Your task to perform on an android device: turn off improve location accuracy Image 0: 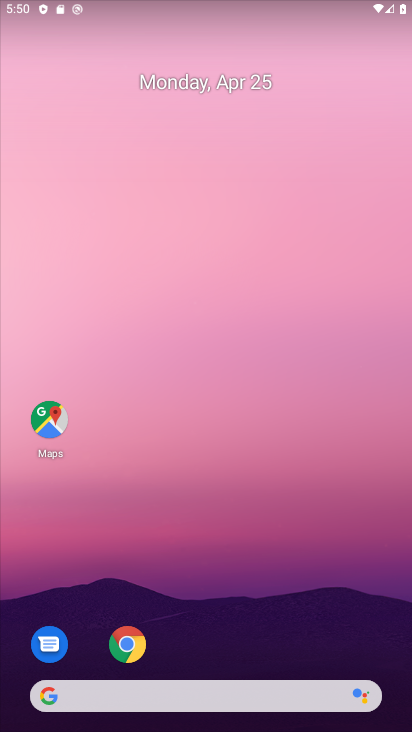
Step 0: drag from (279, 644) to (307, 108)
Your task to perform on an android device: turn off improve location accuracy Image 1: 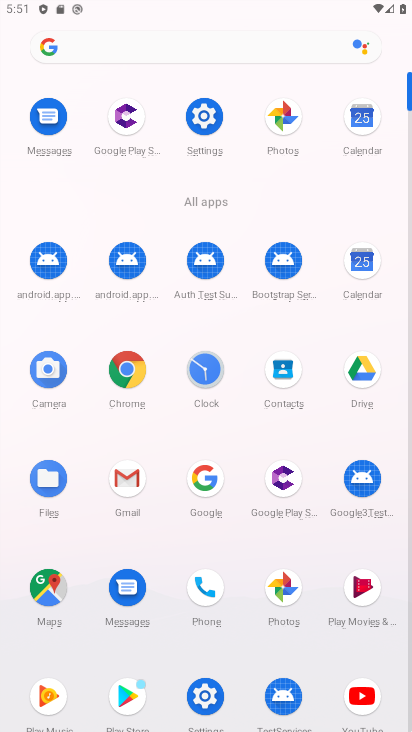
Step 1: click (213, 119)
Your task to perform on an android device: turn off improve location accuracy Image 2: 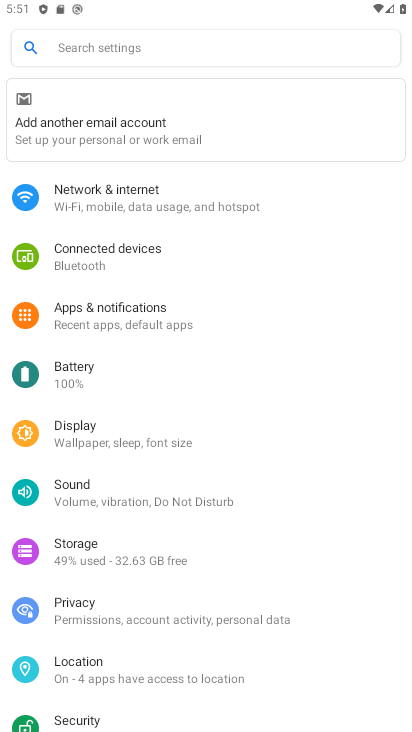
Step 2: click (154, 670)
Your task to perform on an android device: turn off improve location accuracy Image 3: 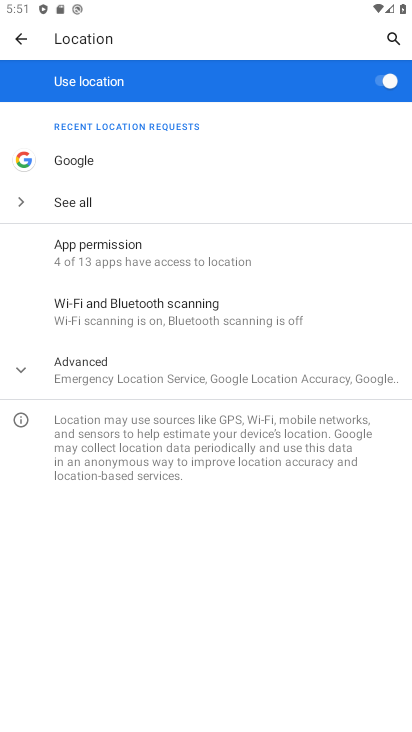
Step 3: click (171, 368)
Your task to perform on an android device: turn off improve location accuracy Image 4: 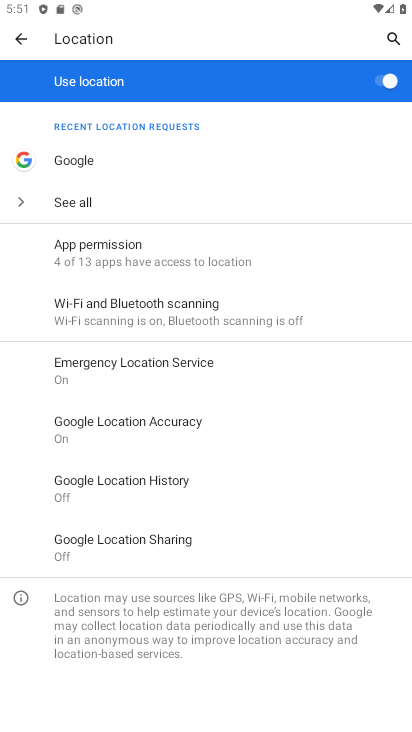
Step 4: click (163, 421)
Your task to perform on an android device: turn off improve location accuracy Image 5: 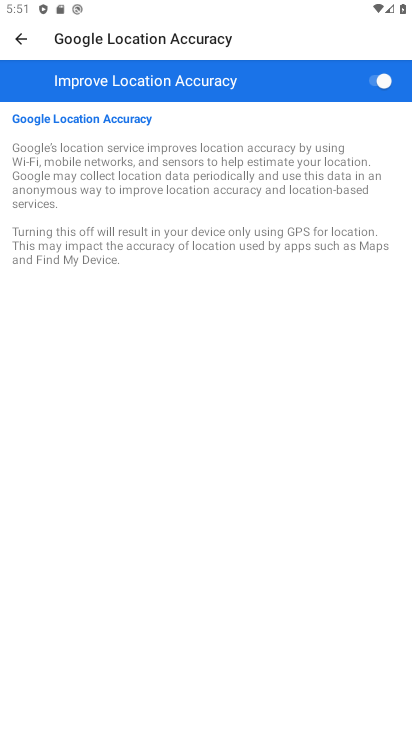
Step 5: click (376, 78)
Your task to perform on an android device: turn off improve location accuracy Image 6: 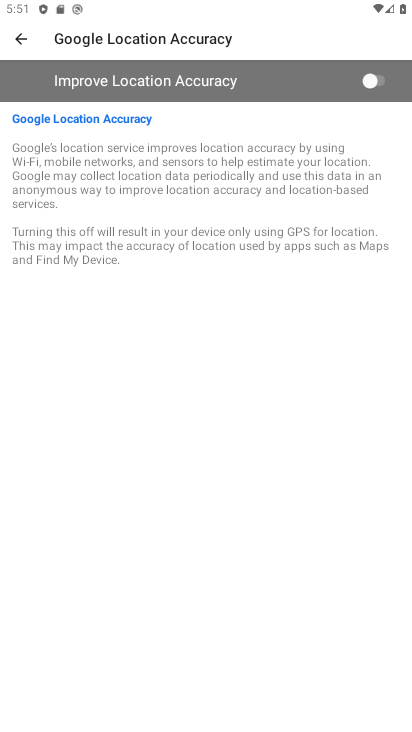
Step 6: task complete